Your task to perform on an android device: check google app version Image 0: 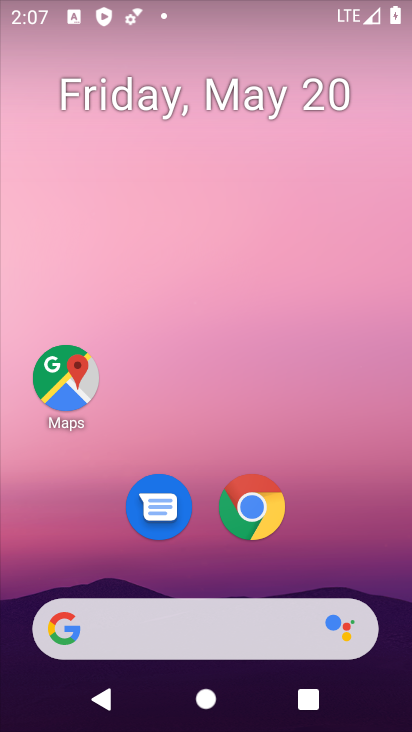
Step 0: click (59, 628)
Your task to perform on an android device: check google app version Image 1: 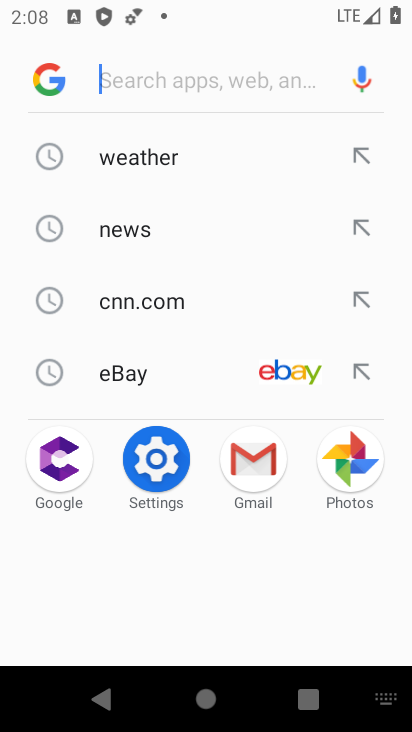
Step 1: click (39, 64)
Your task to perform on an android device: check google app version Image 2: 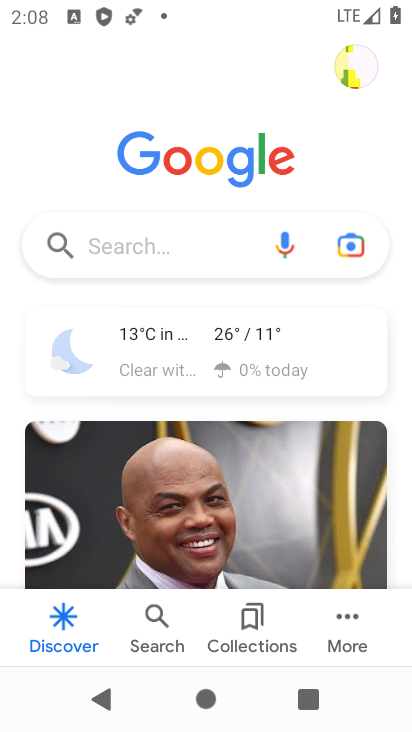
Step 2: click (355, 635)
Your task to perform on an android device: check google app version Image 3: 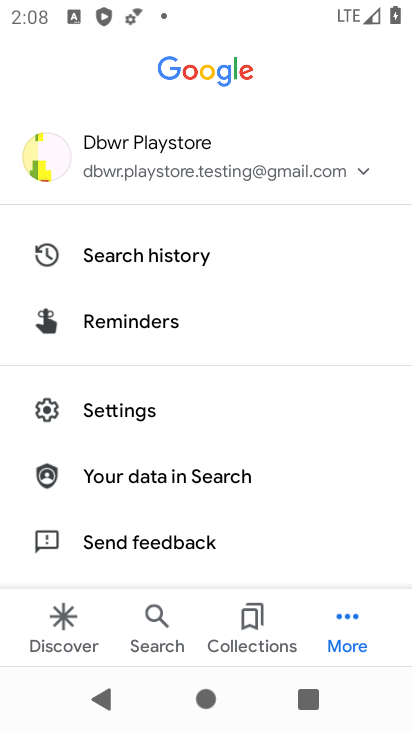
Step 3: click (108, 398)
Your task to perform on an android device: check google app version Image 4: 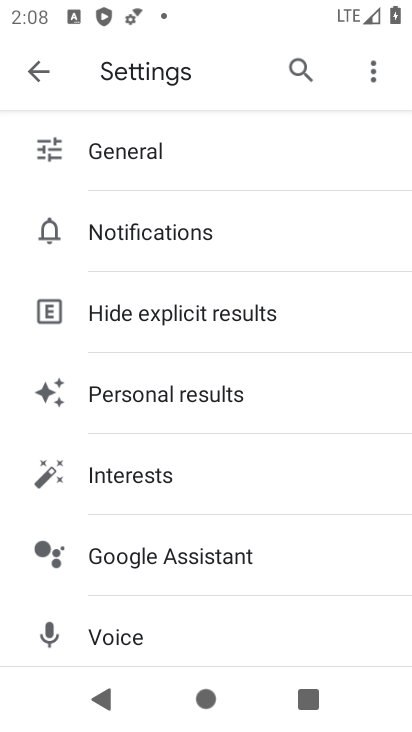
Step 4: drag from (114, 629) to (166, 257)
Your task to perform on an android device: check google app version Image 5: 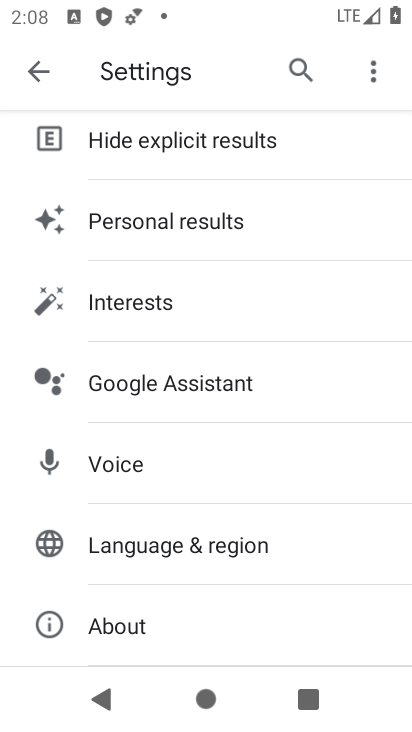
Step 5: click (149, 622)
Your task to perform on an android device: check google app version Image 6: 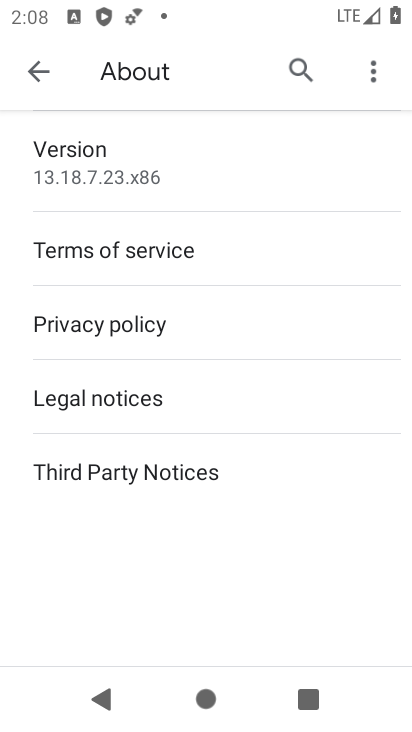
Step 6: task complete